Your task to perform on an android device: turn off location Image 0: 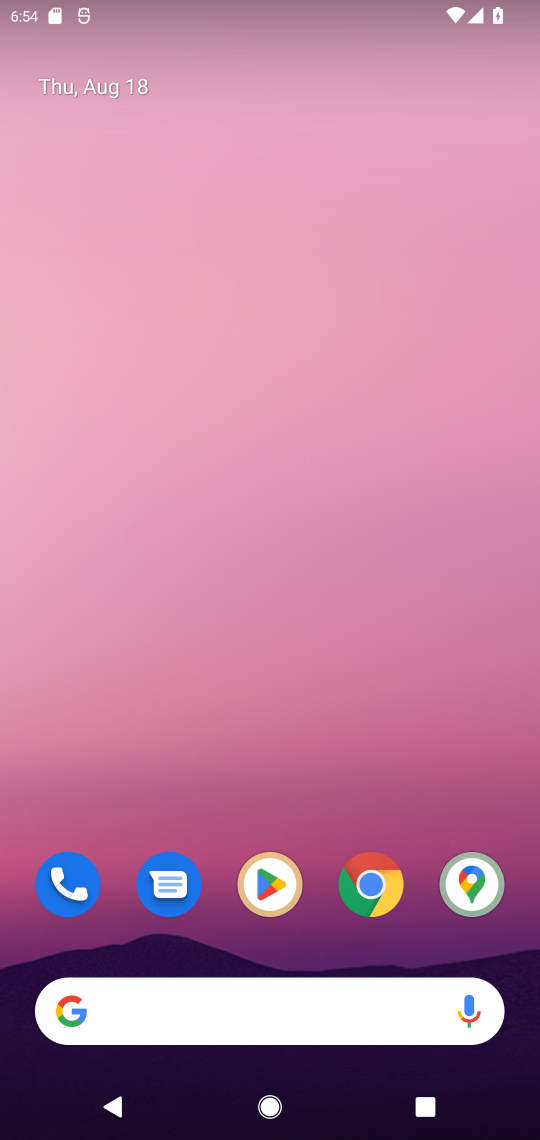
Step 0: drag from (227, 922) to (269, 151)
Your task to perform on an android device: turn off location Image 1: 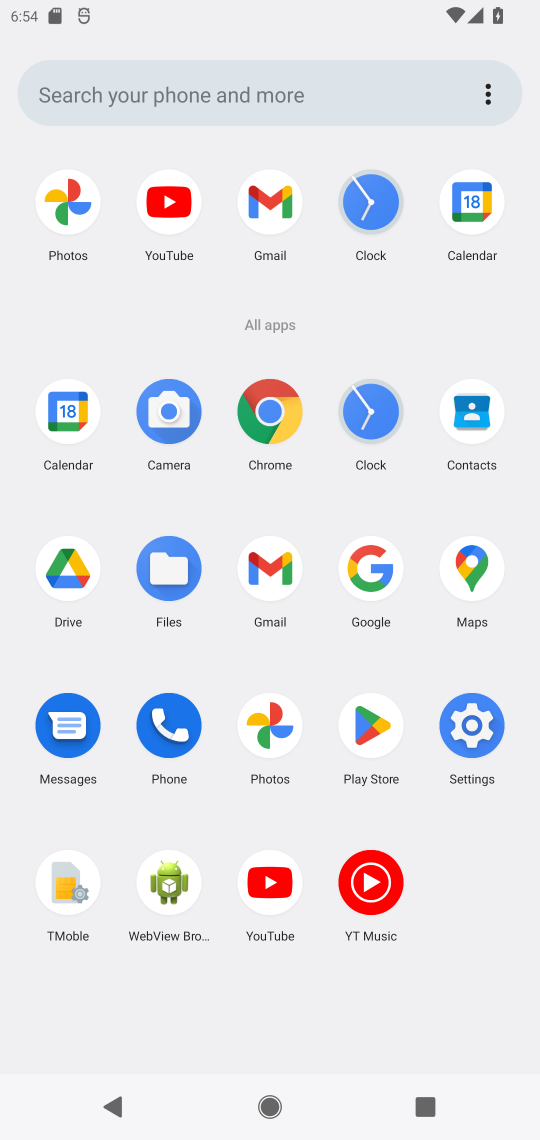
Step 1: click (479, 719)
Your task to perform on an android device: turn off location Image 2: 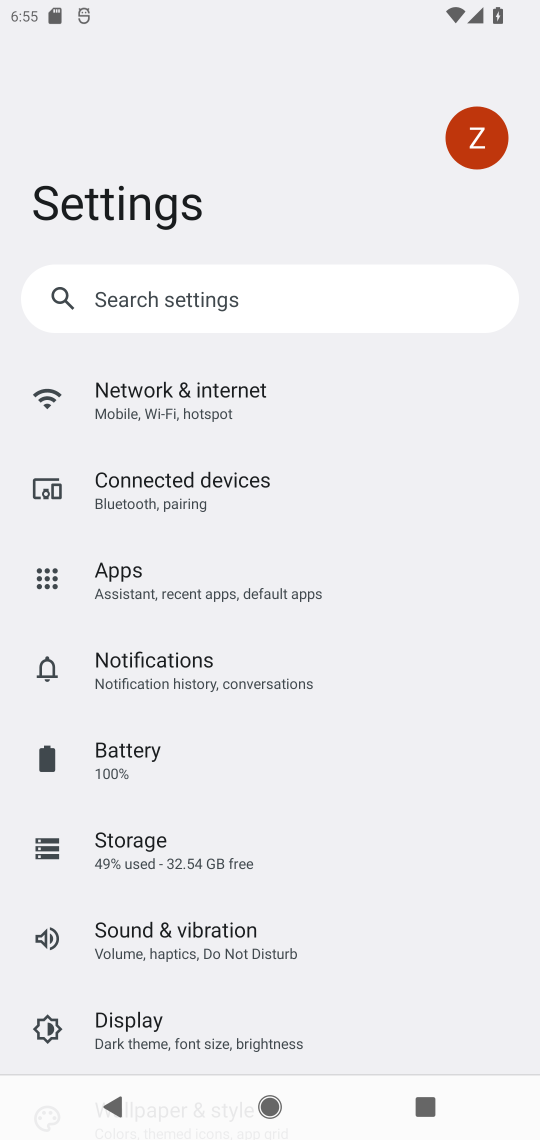
Step 2: drag from (148, 968) to (260, 296)
Your task to perform on an android device: turn off location Image 3: 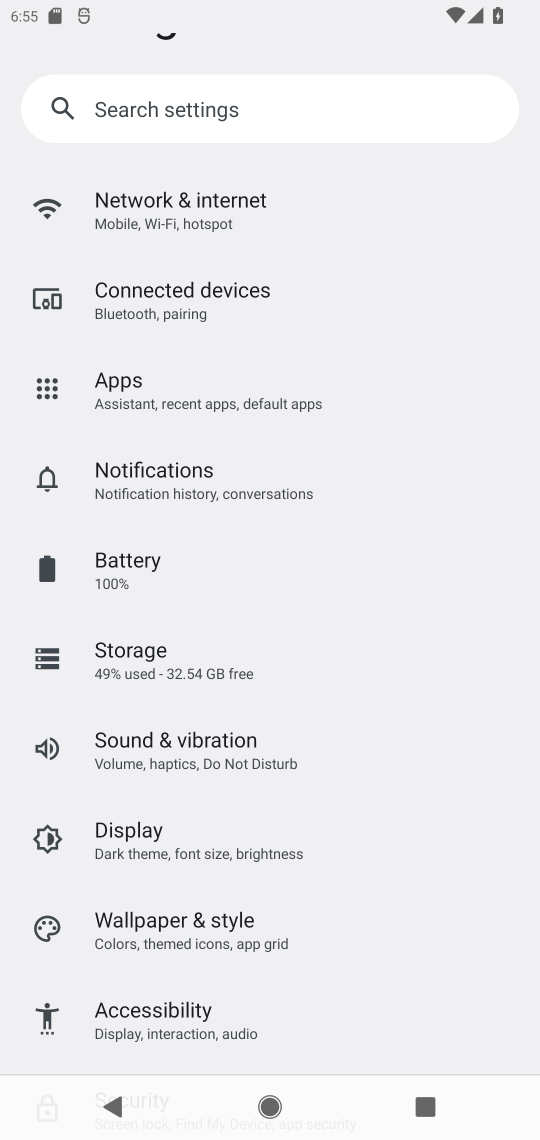
Step 3: drag from (151, 1024) to (524, 27)
Your task to perform on an android device: turn off location Image 4: 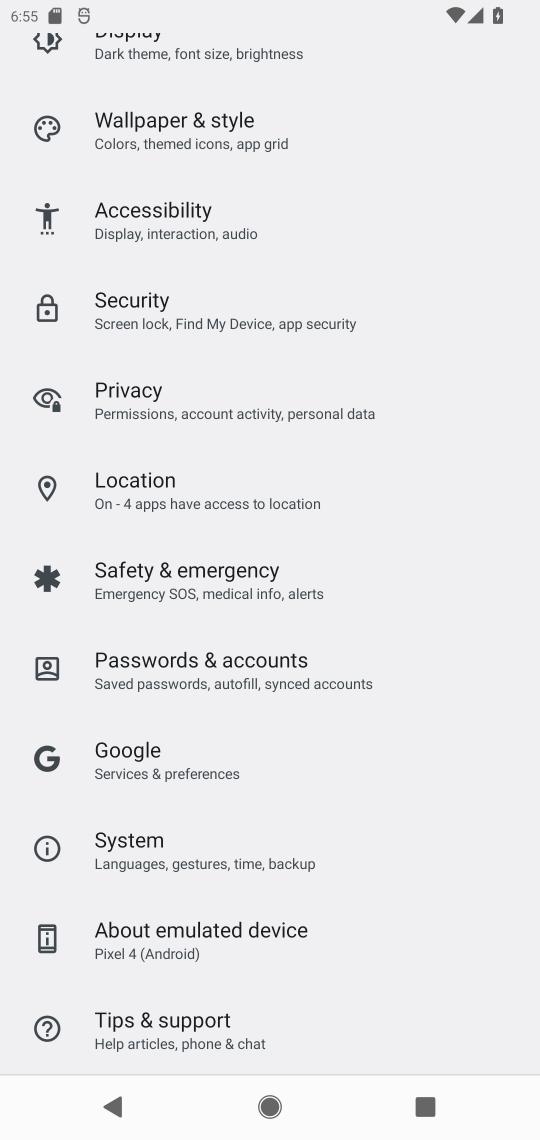
Step 4: click (138, 505)
Your task to perform on an android device: turn off location Image 5: 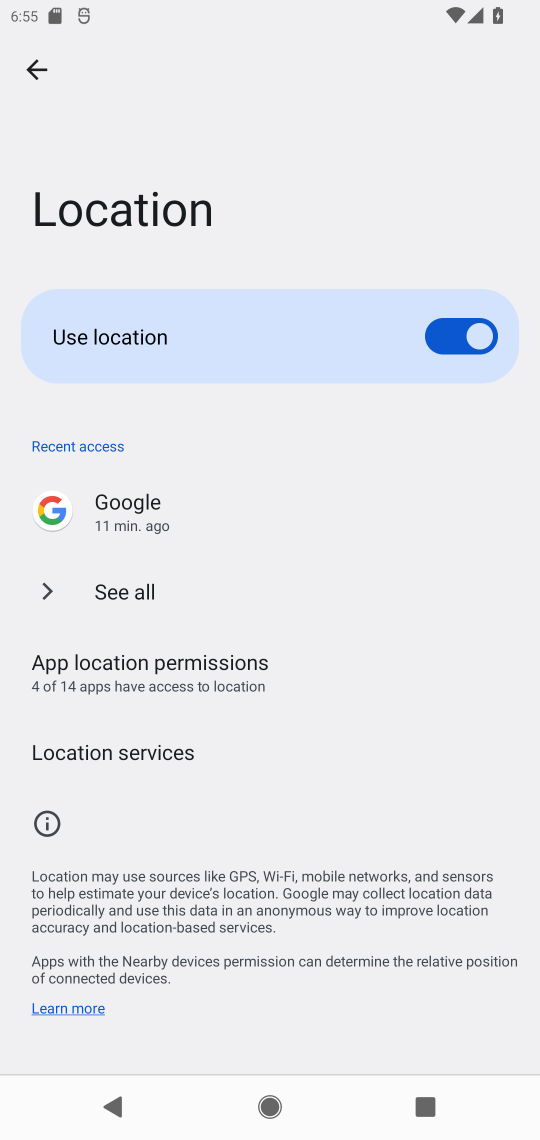
Step 5: click (457, 346)
Your task to perform on an android device: turn off location Image 6: 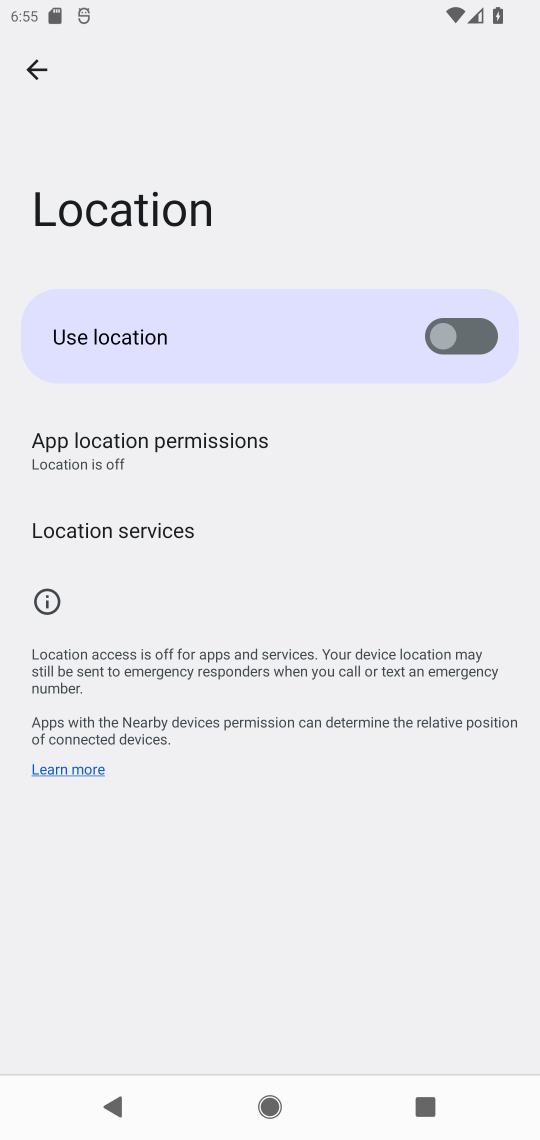
Step 6: task complete